Your task to perform on an android device: open app "Google Duo" (install if not already installed) Image 0: 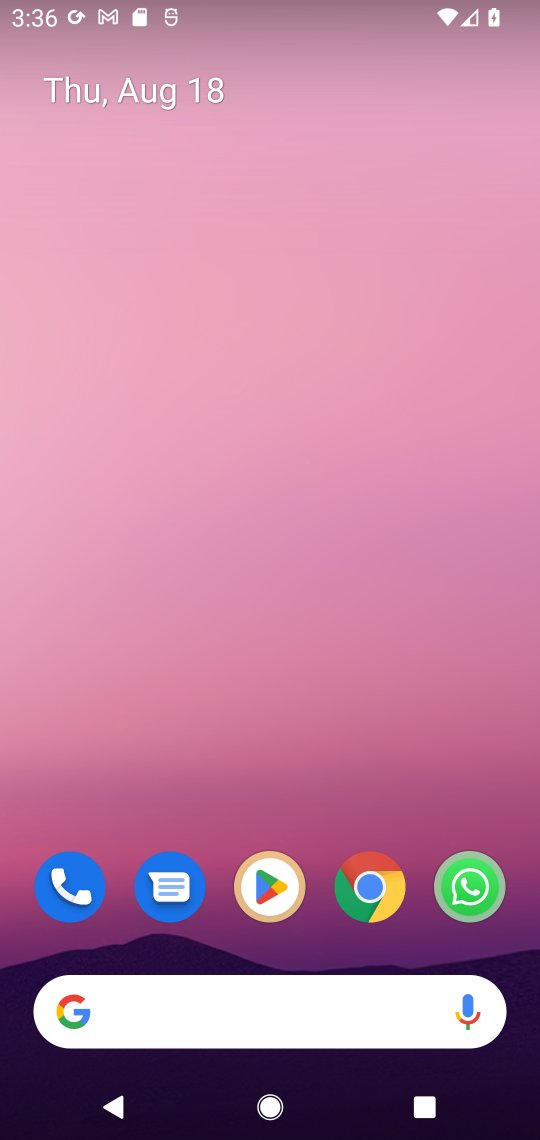
Step 0: click (264, 874)
Your task to perform on an android device: open app "Google Duo" (install if not already installed) Image 1: 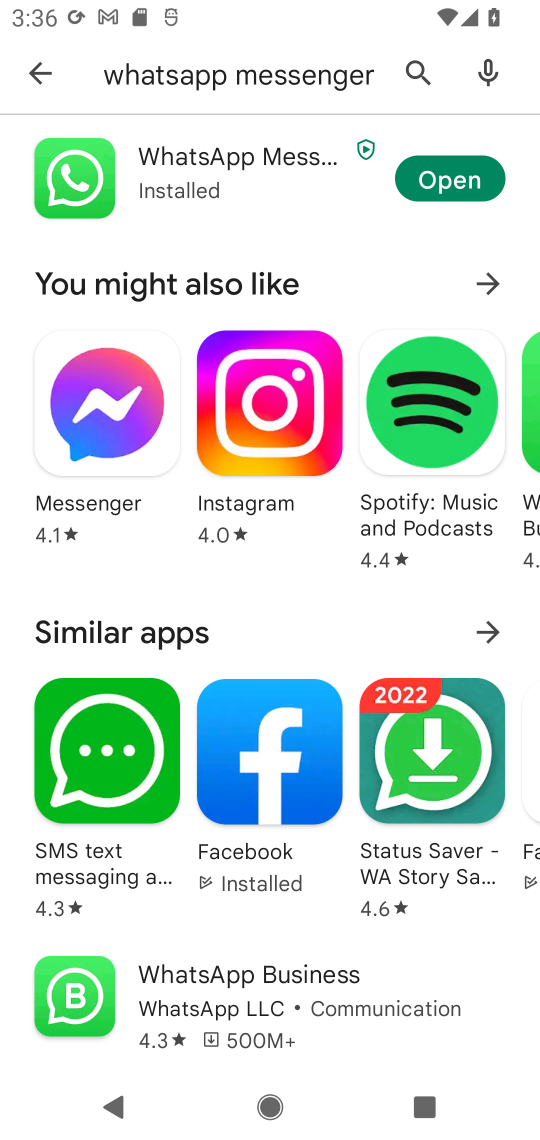
Step 1: click (407, 74)
Your task to perform on an android device: open app "Google Duo" (install if not already installed) Image 2: 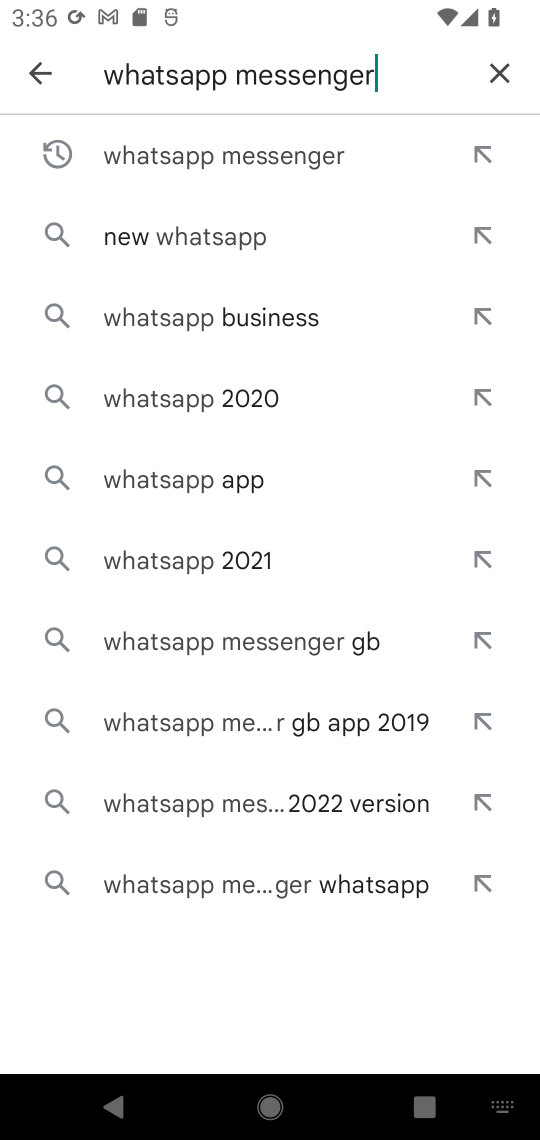
Step 2: click (488, 65)
Your task to perform on an android device: open app "Google Duo" (install if not already installed) Image 3: 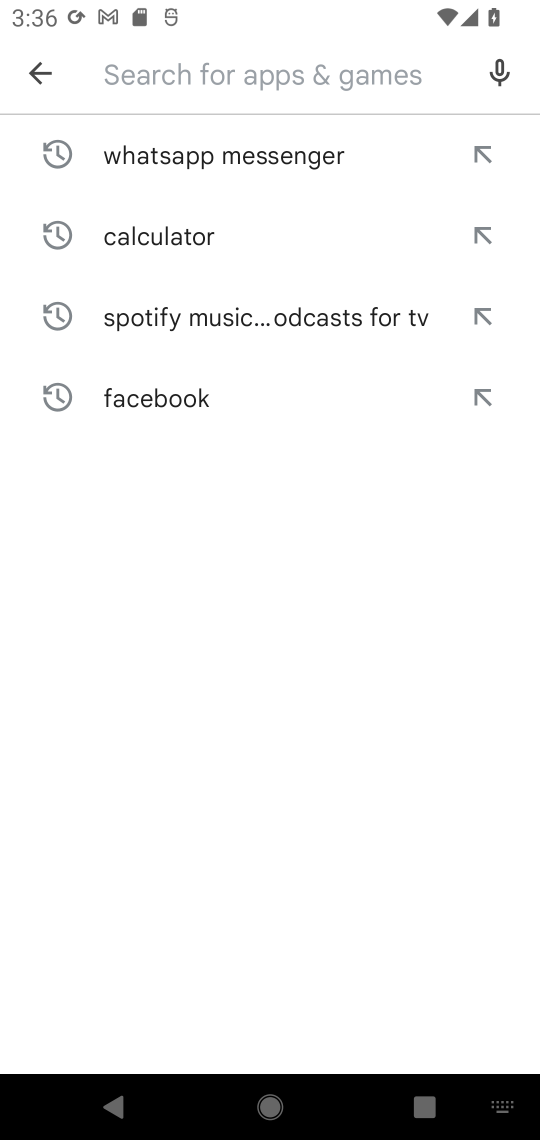
Step 3: type "Google Duo"
Your task to perform on an android device: open app "Google Duo" (install if not already installed) Image 4: 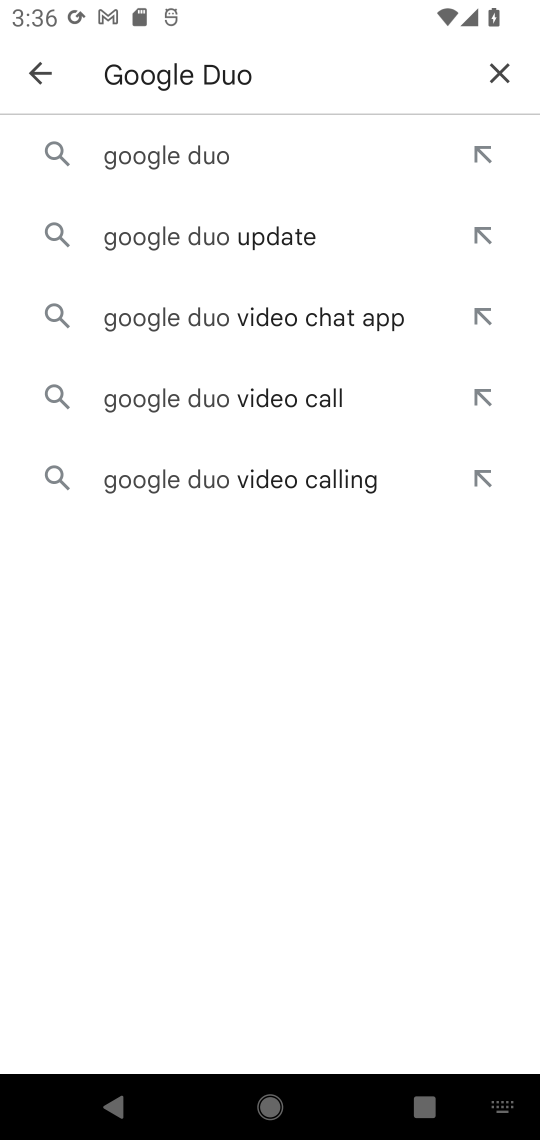
Step 4: click (183, 148)
Your task to perform on an android device: open app "Google Duo" (install if not already installed) Image 5: 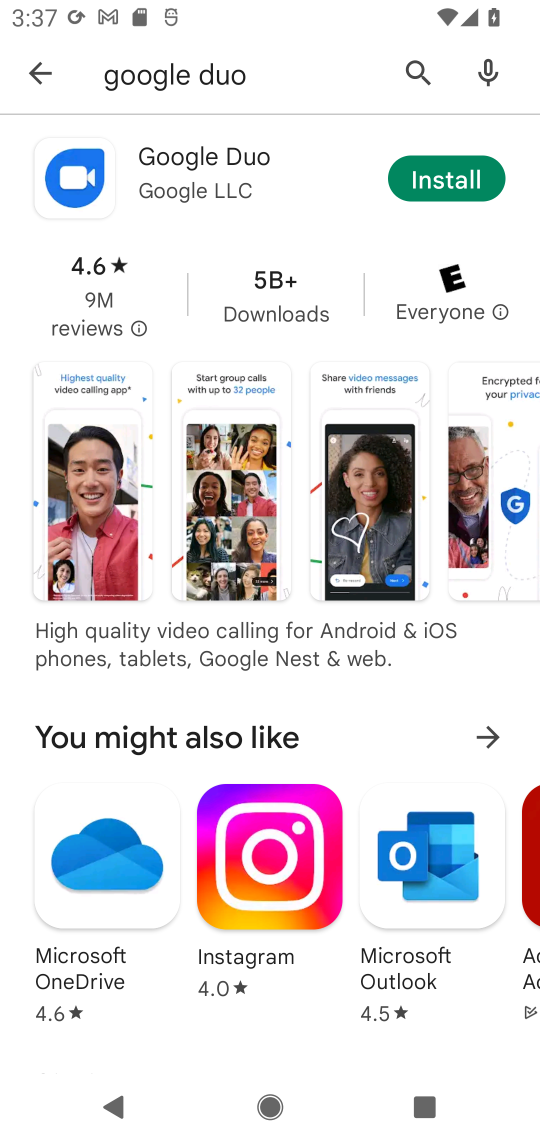
Step 5: click (440, 172)
Your task to perform on an android device: open app "Google Duo" (install if not already installed) Image 6: 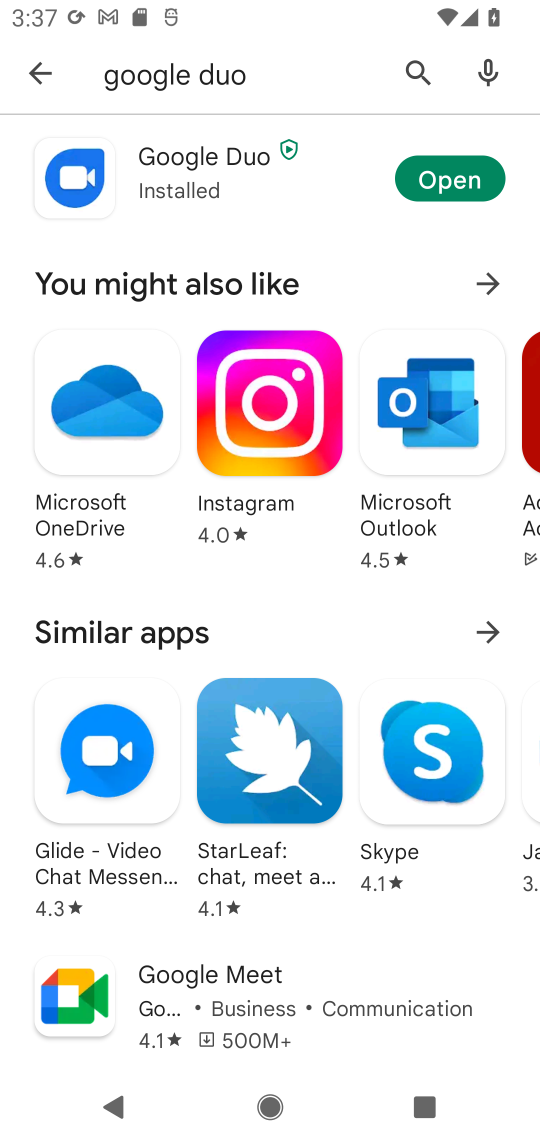
Step 6: click (457, 175)
Your task to perform on an android device: open app "Google Duo" (install if not already installed) Image 7: 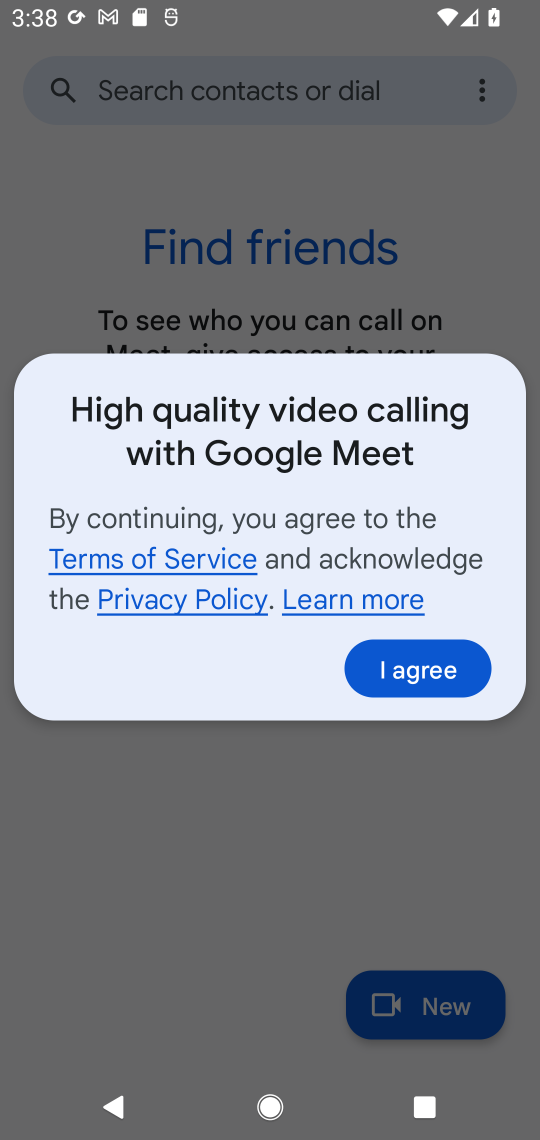
Step 7: click (420, 675)
Your task to perform on an android device: open app "Google Duo" (install if not already installed) Image 8: 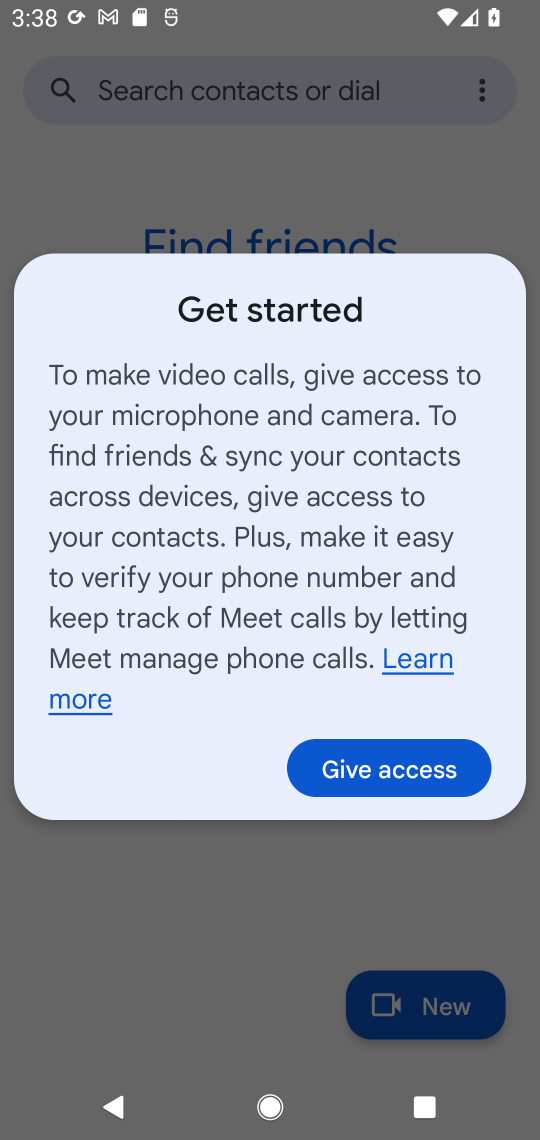
Step 8: task complete